Your task to perform on an android device: Open the Play Movies app and select the watchlist tab. Image 0: 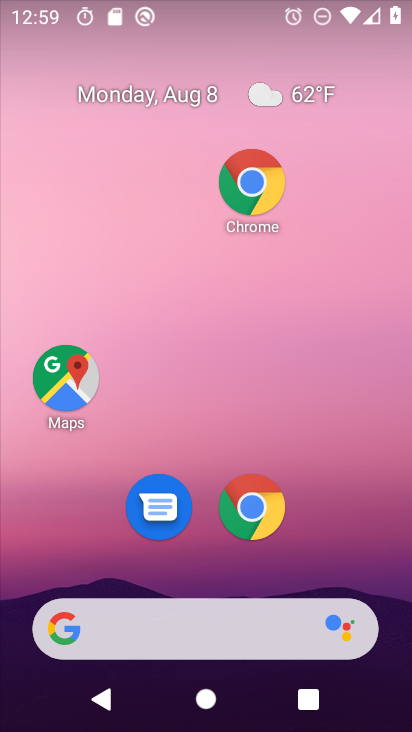
Step 0: drag from (343, 529) to (334, 29)
Your task to perform on an android device: Open the Play Movies app and select the watchlist tab. Image 1: 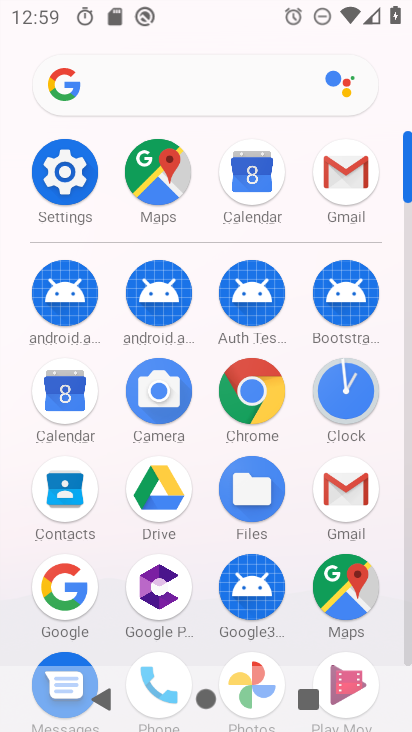
Step 1: drag from (301, 571) to (309, 295)
Your task to perform on an android device: Open the Play Movies app and select the watchlist tab. Image 2: 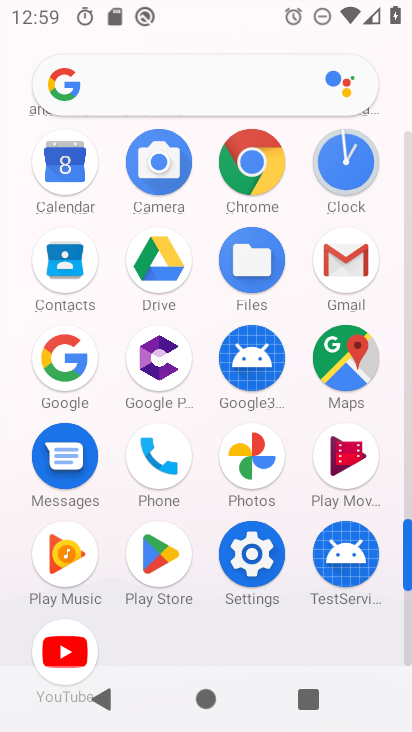
Step 2: click (354, 462)
Your task to perform on an android device: Open the Play Movies app and select the watchlist tab. Image 3: 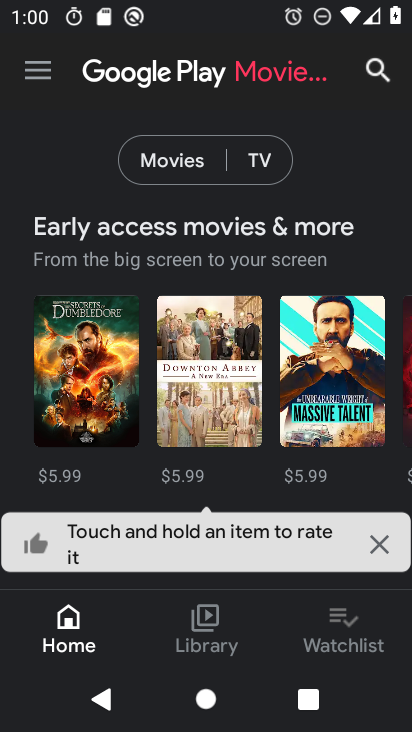
Step 3: click (346, 623)
Your task to perform on an android device: Open the Play Movies app and select the watchlist tab. Image 4: 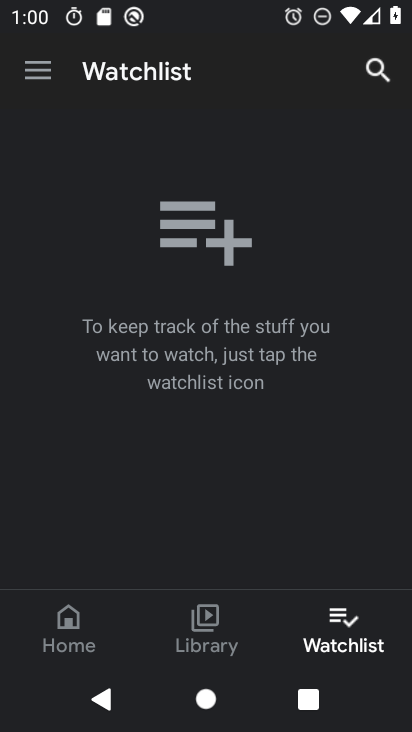
Step 4: task complete